Your task to perform on an android device: check out phone information Image 0: 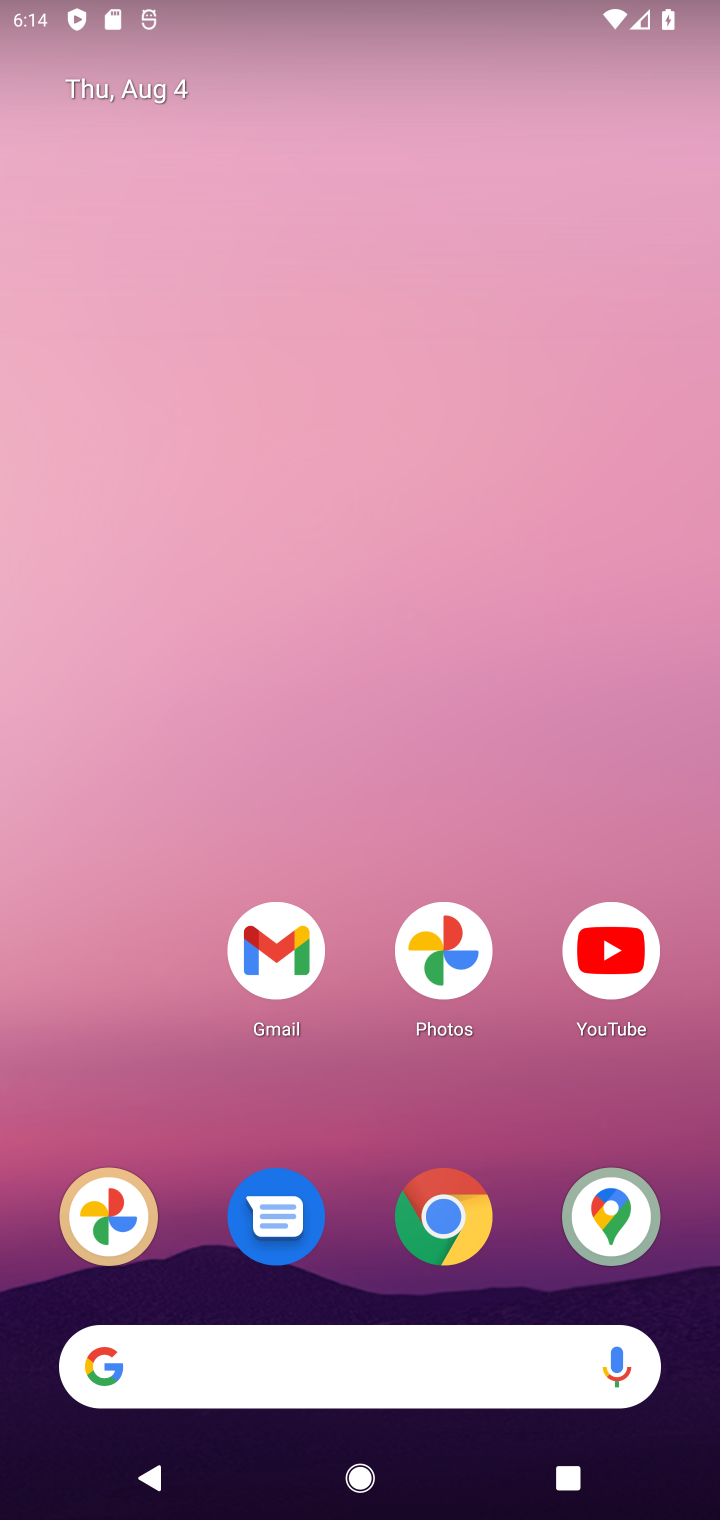
Step 0: drag from (520, 1138) to (419, 419)
Your task to perform on an android device: check out phone information Image 1: 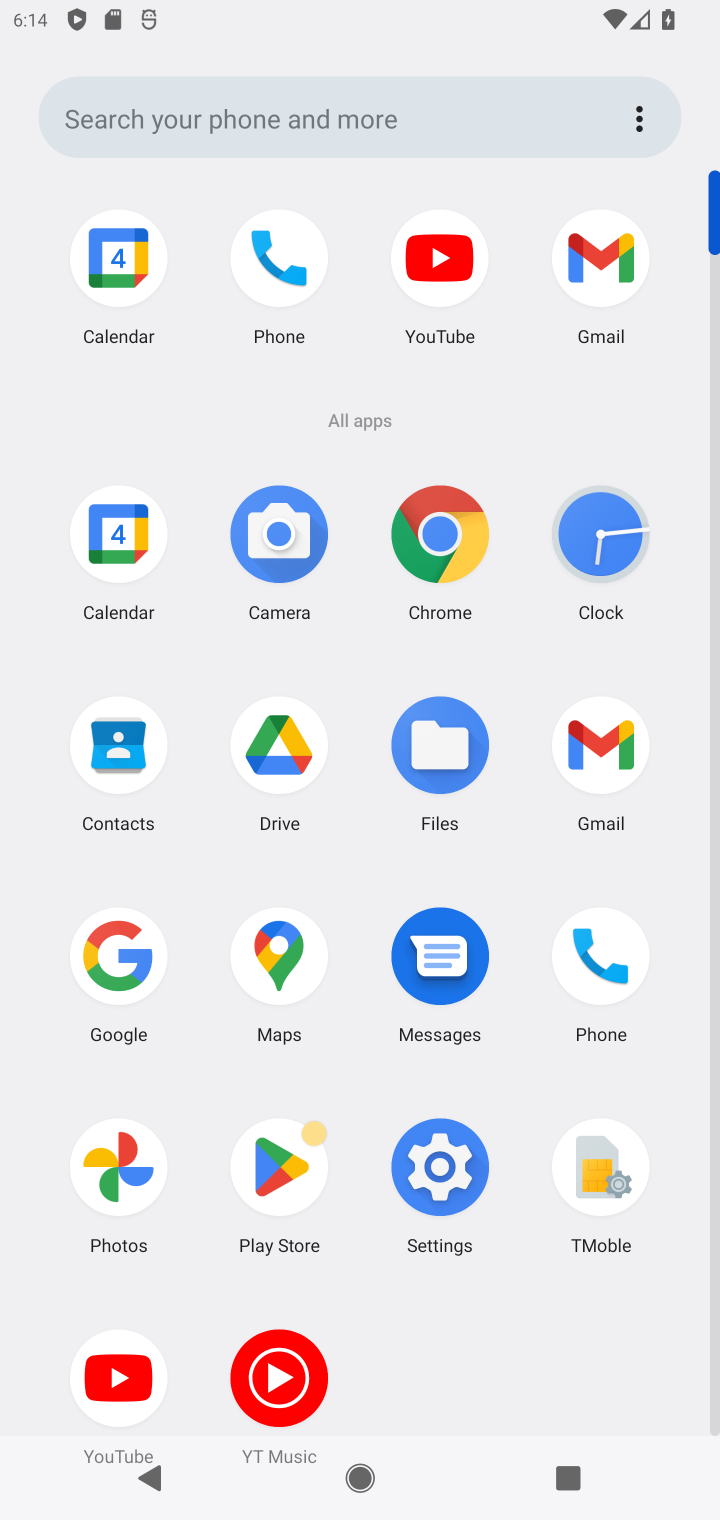
Step 1: click (471, 1147)
Your task to perform on an android device: check out phone information Image 2: 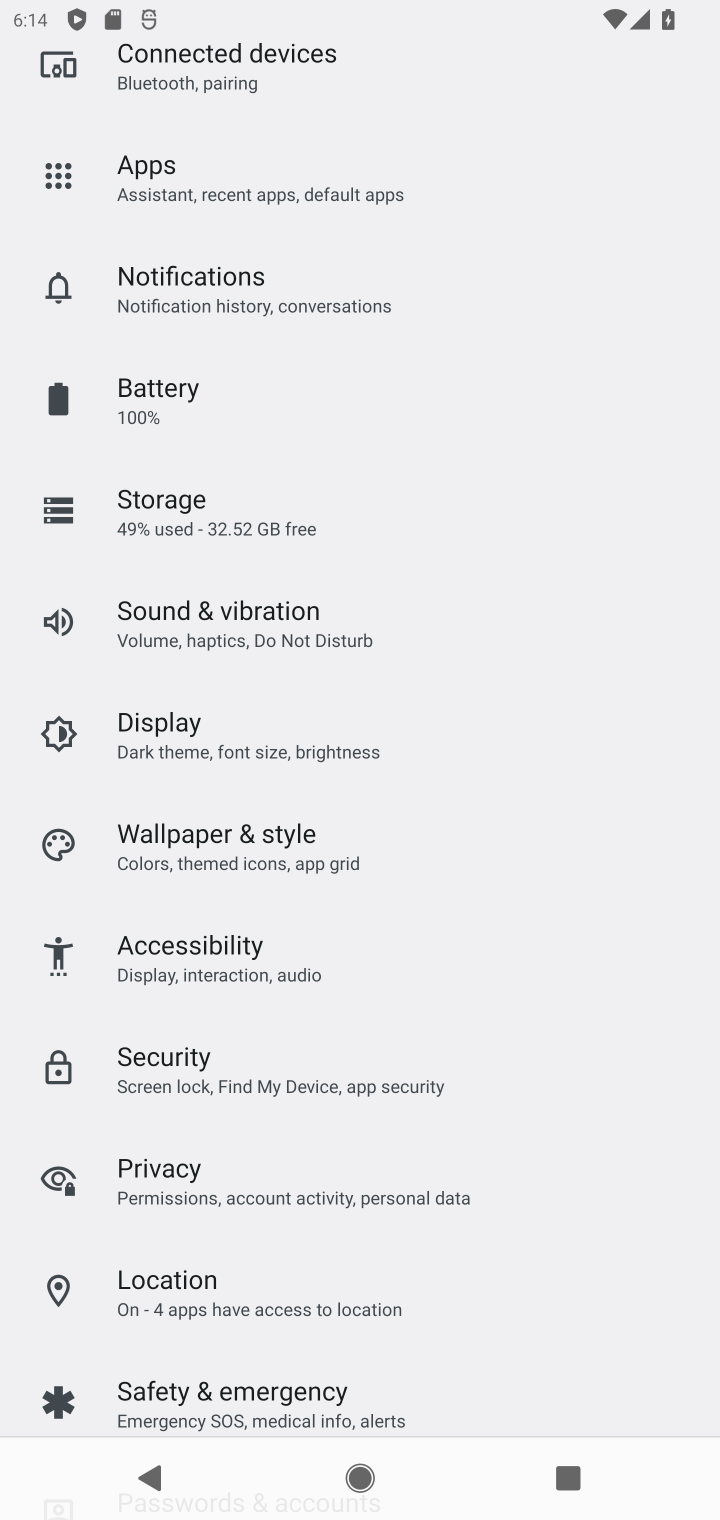
Step 2: drag from (529, 1256) to (559, 133)
Your task to perform on an android device: check out phone information Image 3: 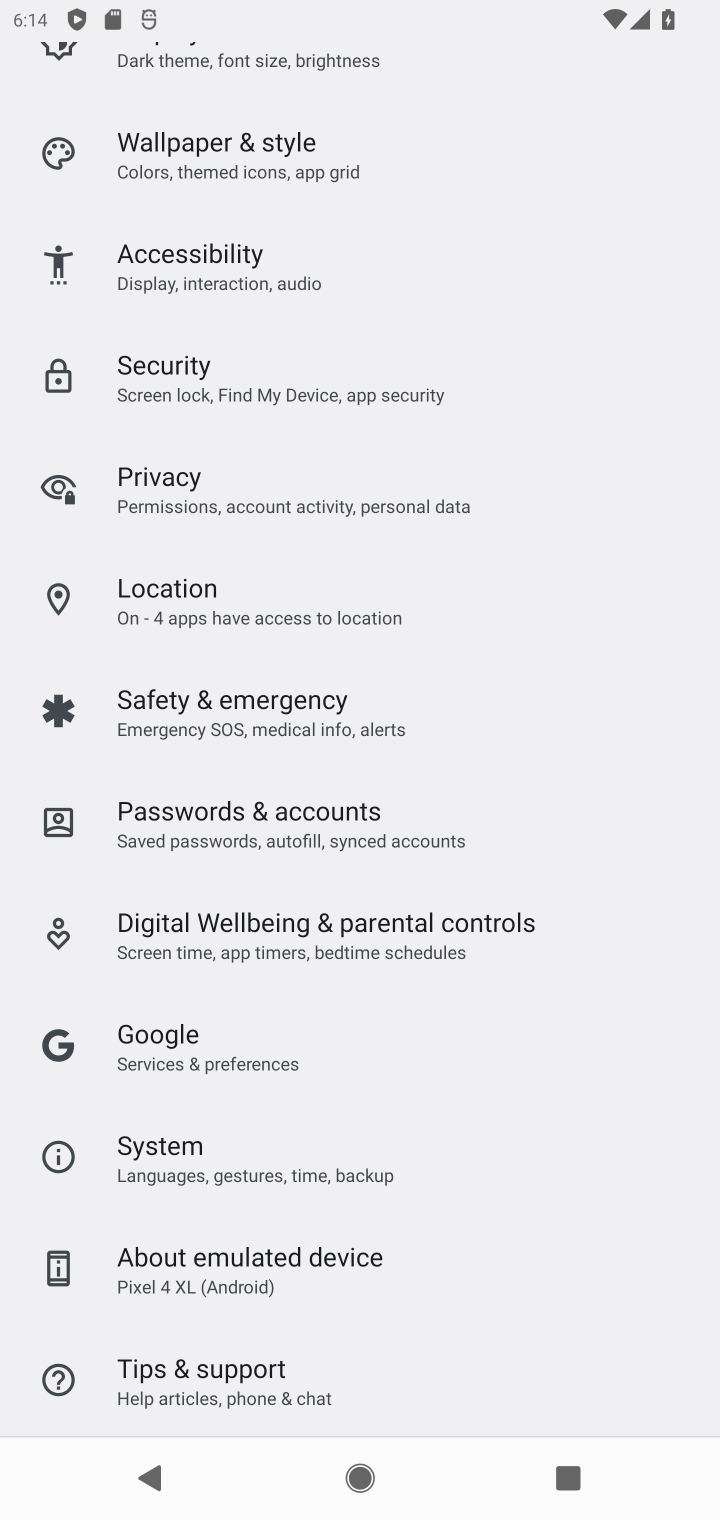
Step 3: drag from (436, 1316) to (333, 501)
Your task to perform on an android device: check out phone information Image 4: 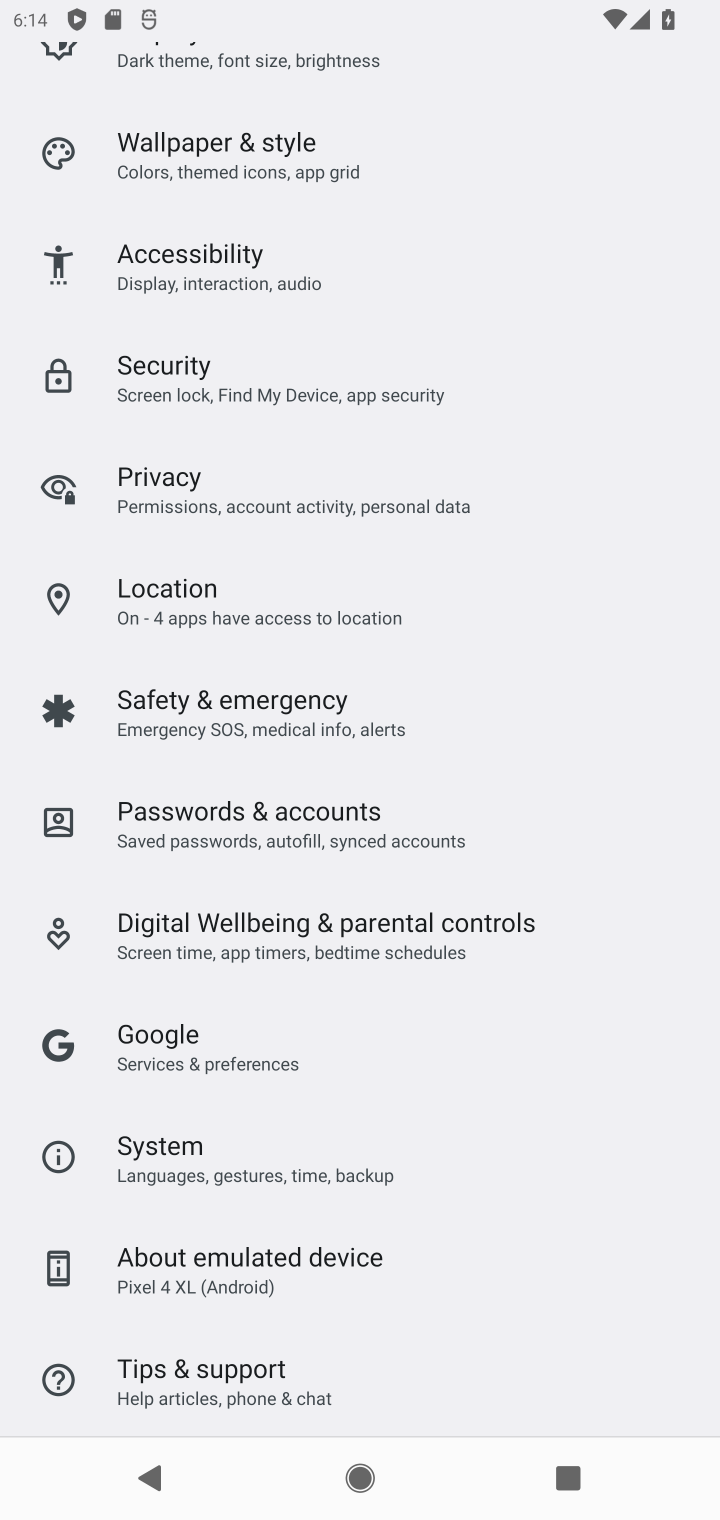
Step 4: click (231, 1250)
Your task to perform on an android device: check out phone information Image 5: 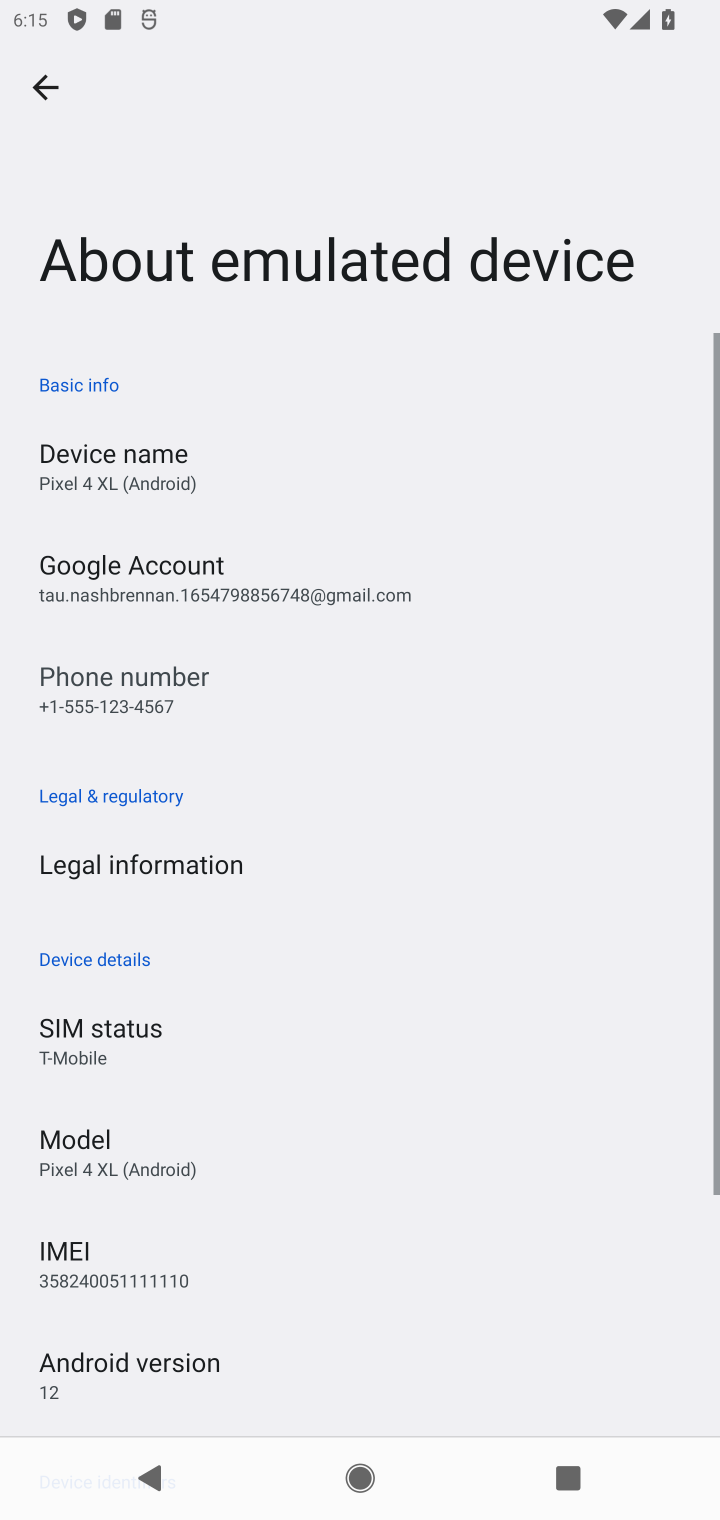
Step 5: task complete